Your task to perform on an android device: Open maps Image 0: 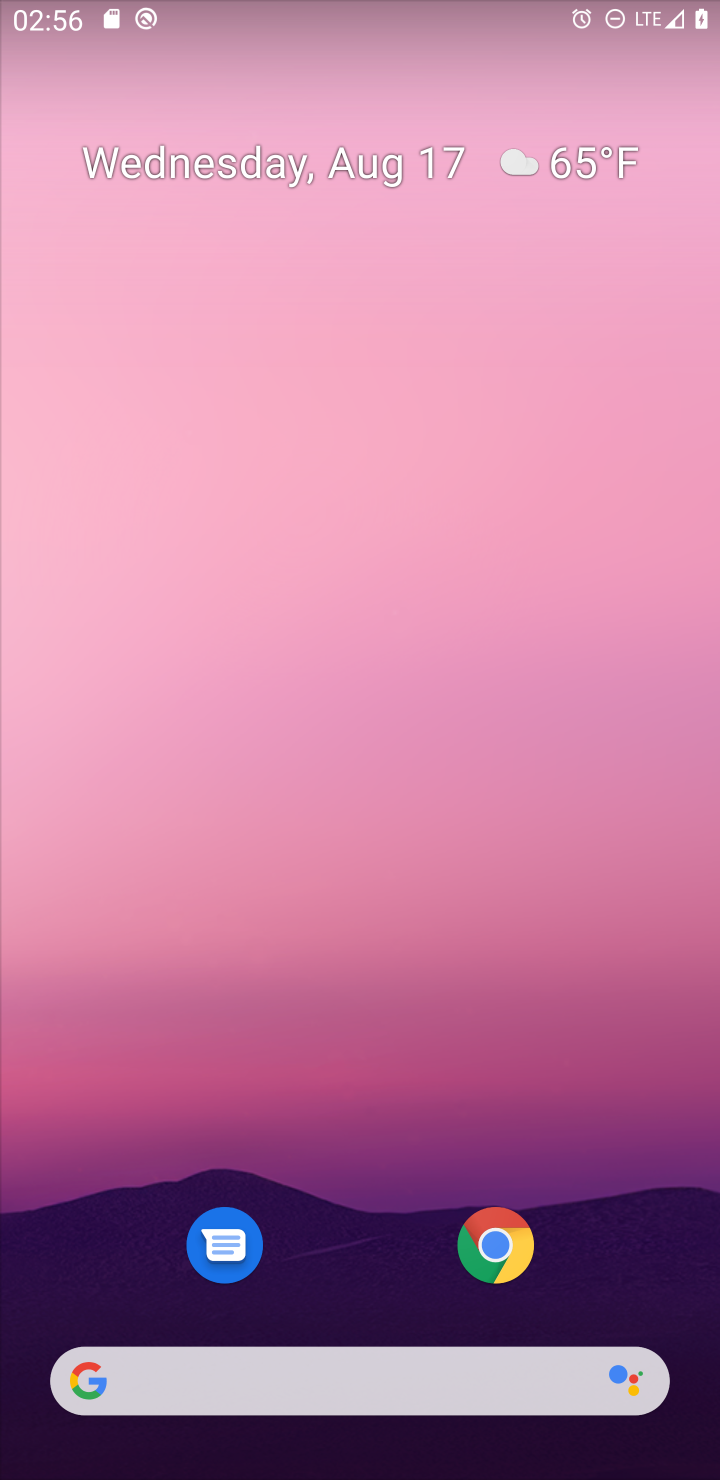
Step 0: drag from (335, 1247) to (270, 240)
Your task to perform on an android device: Open maps Image 1: 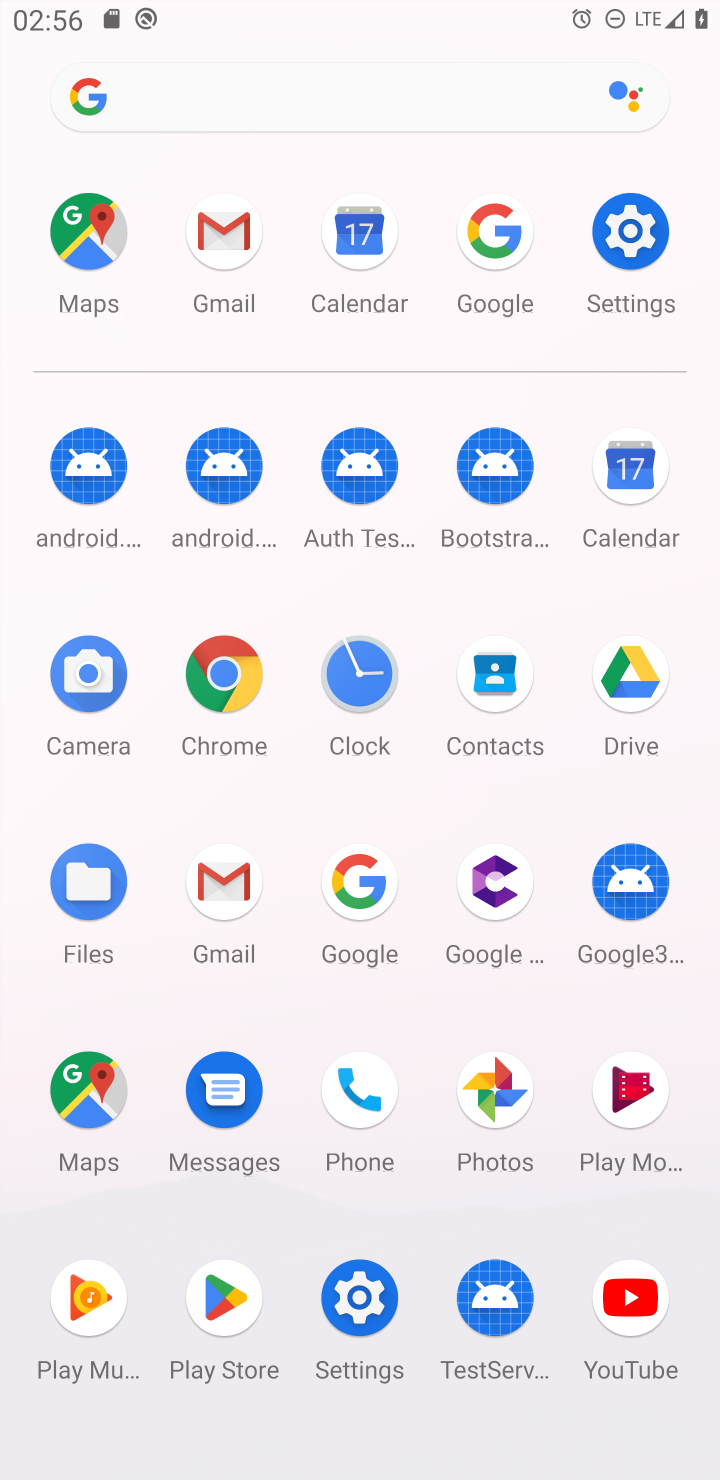
Step 1: click (93, 1083)
Your task to perform on an android device: Open maps Image 2: 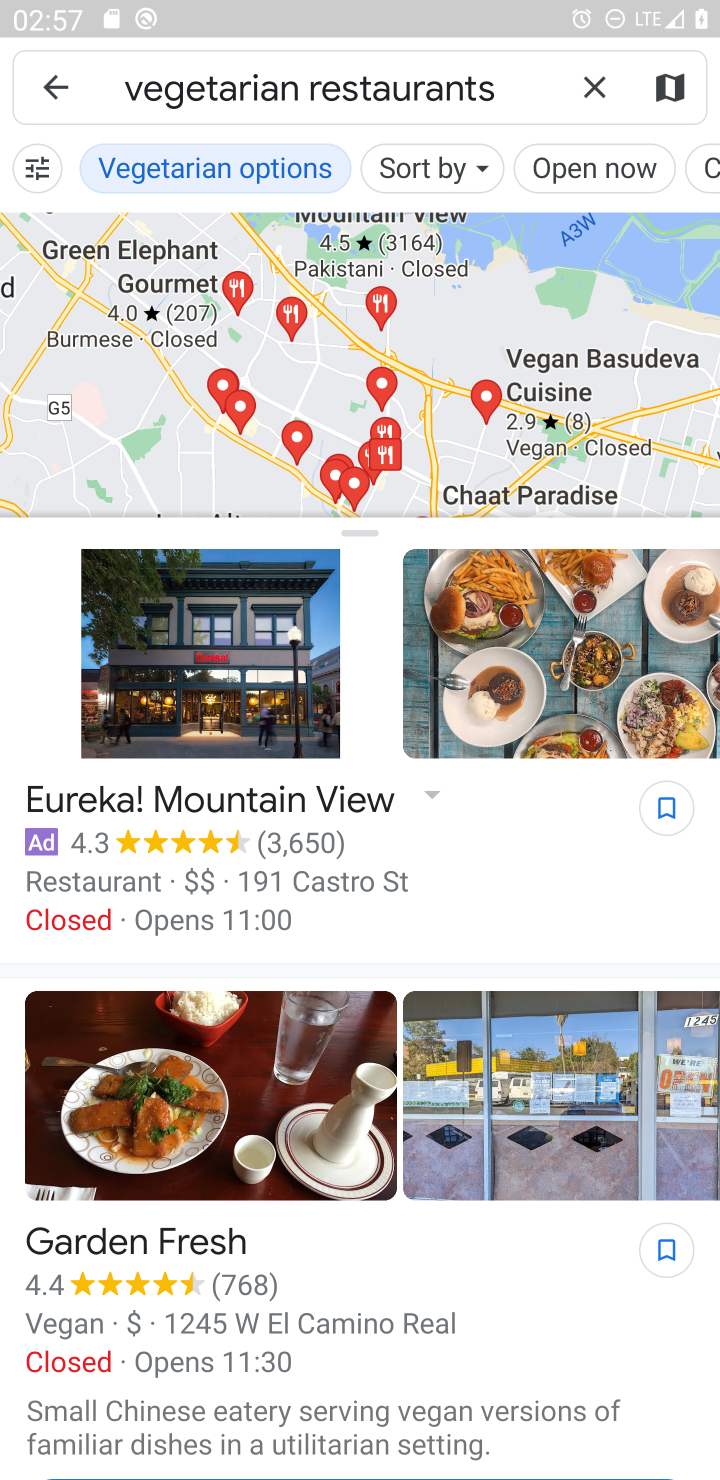
Step 2: task complete